Your task to perform on an android device: Open Google Chrome and open the bookmarks view Image 0: 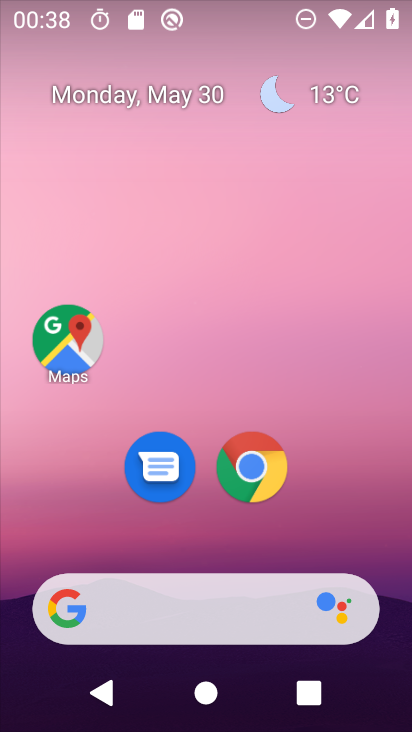
Step 0: click (226, 478)
Your task to perform on an android device: Open Google Chrome and open the bookmarks view Image 1: 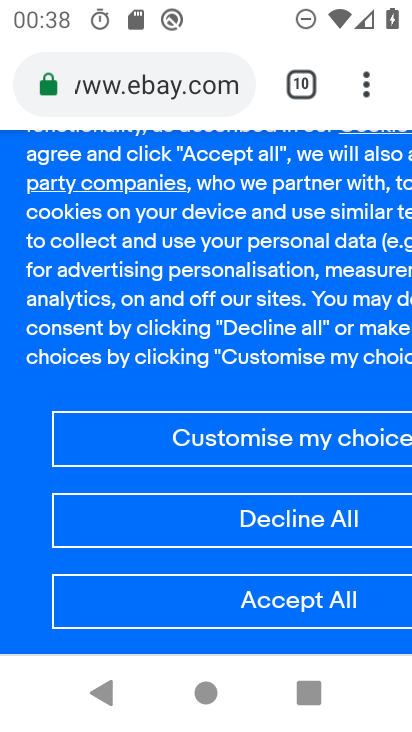
Step 1: task complete